Your task to perform on an android device: open the mobile data screen to see how much data has been used Image 0: 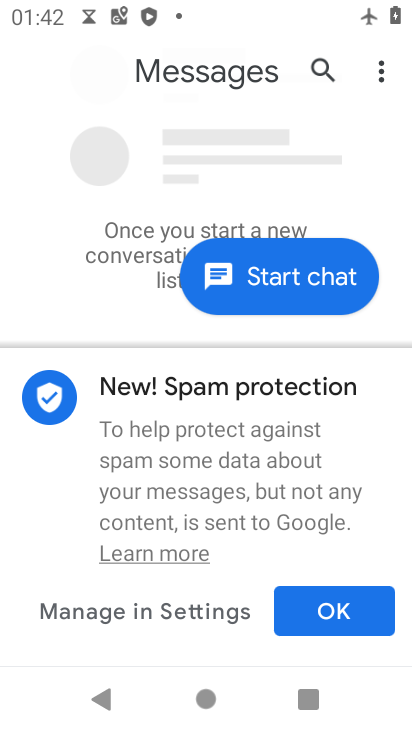
Step 0: press home button
Your task to perform on an android device: open the mobile data screen to see how much data has been used Image 1: 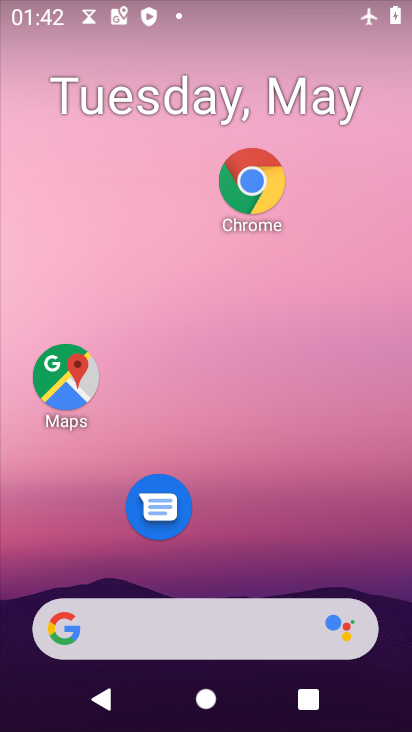
Step 1: drag from (277, 513) to (325, 254)
Your task to perform on an android device: open the mobile data screen to see how much data has been used Image 2: 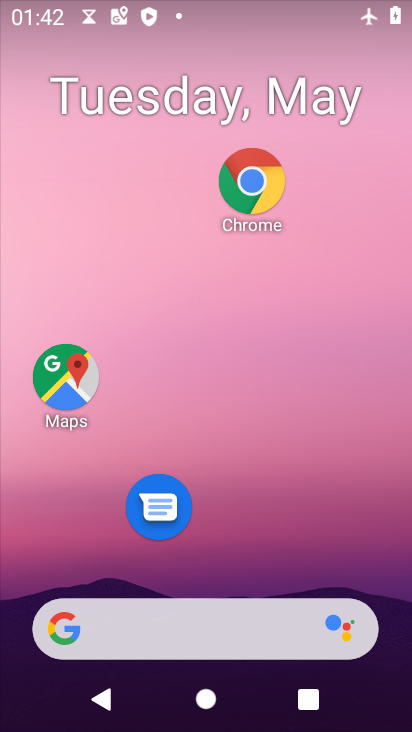
Step 2: drag from (286, 625) to (314, 261)
Your task to perform on an android device: open the mobile data screen to see how much data has been used Image 3: 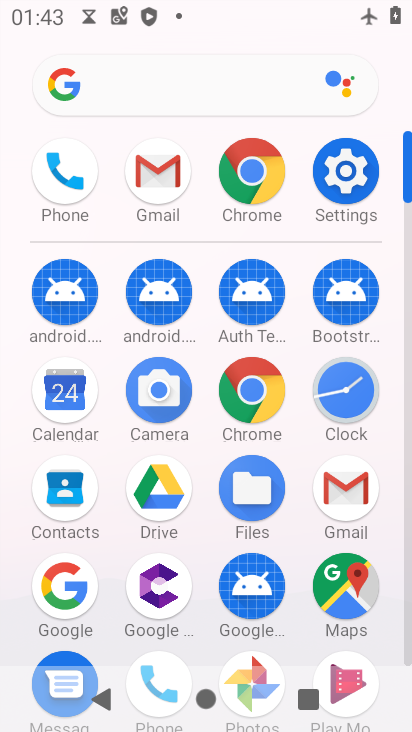
Step 3: click (245, 386)
Your task to perform on an android device: open the mobile data screen to see how much data has been used Image 4: 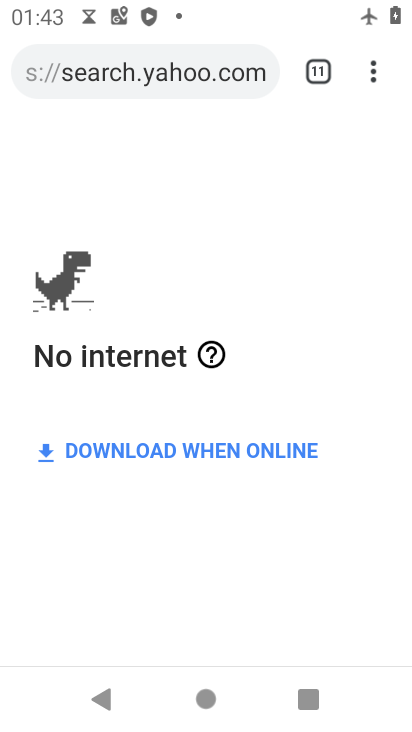
Step 4: press home button
Your task to perform on an android device: open the mobile data screen to see how much data has been used Image 5: 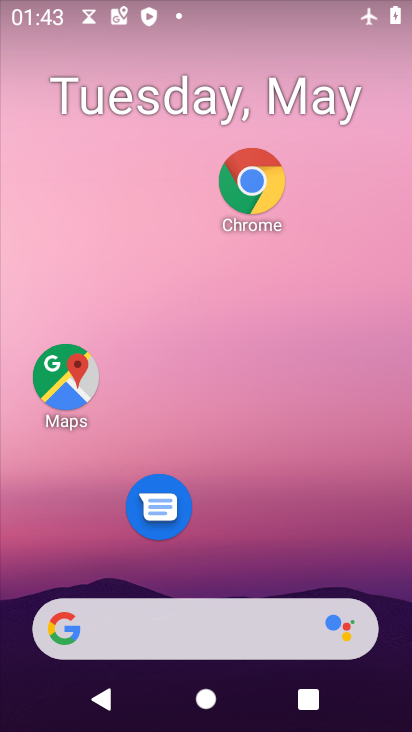
Step 5: drag from (332, 436) to (341, 218)
Your task to perform on an android device: open the mobile data screen to see how much data has been used Image 6: 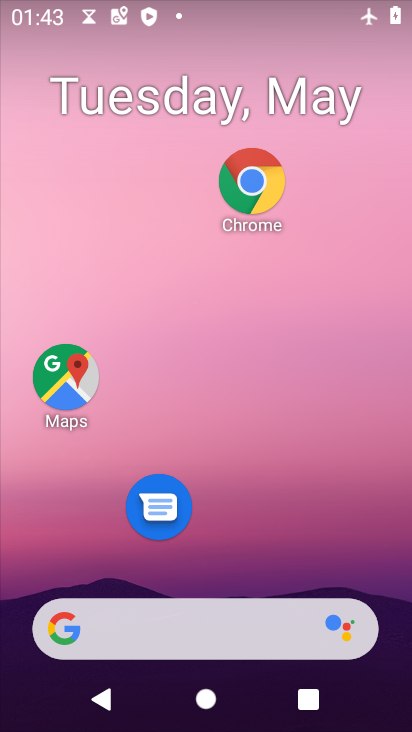
Step 6: drag from (263, 575) to (264, 247)
Your task to perform on an android device: open the mobile data screen to see how much data has been used Image 7: 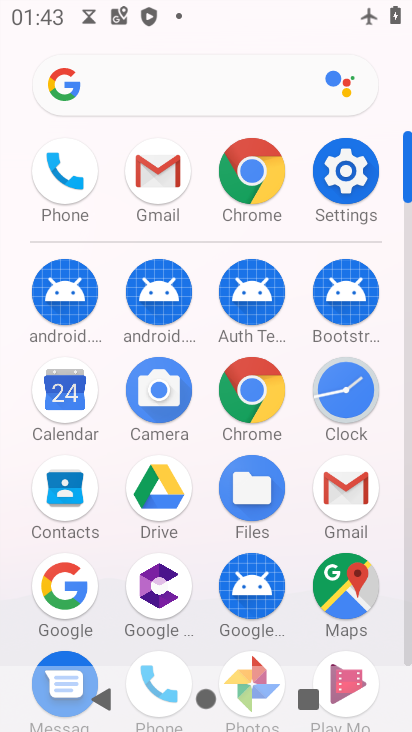
Step 7: click (336, 164)
Your task to perform on an android device: open the mobile data screen to see how much data has been used Image 8: 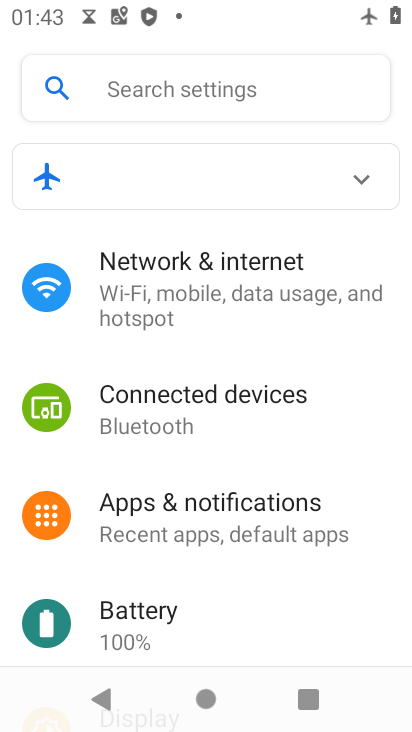
Step 8: click (225, 301)
Your task to perform on an android device: open the mobile data screen to see how much data has been used Image 9: 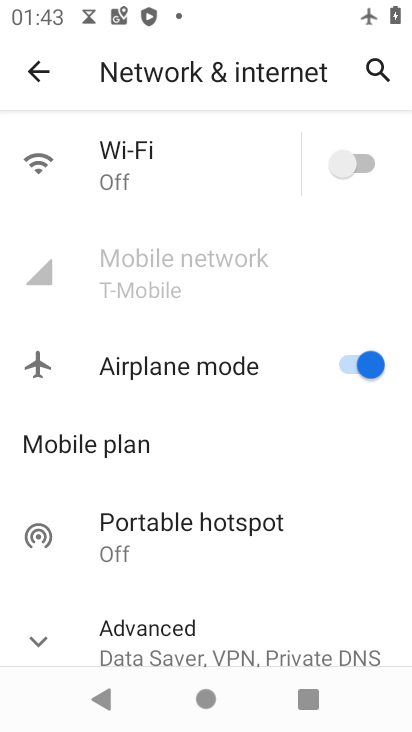
Step 9: task complete